Your task to perform on an android device: Open calendar and show me the third week of next month Image 0: 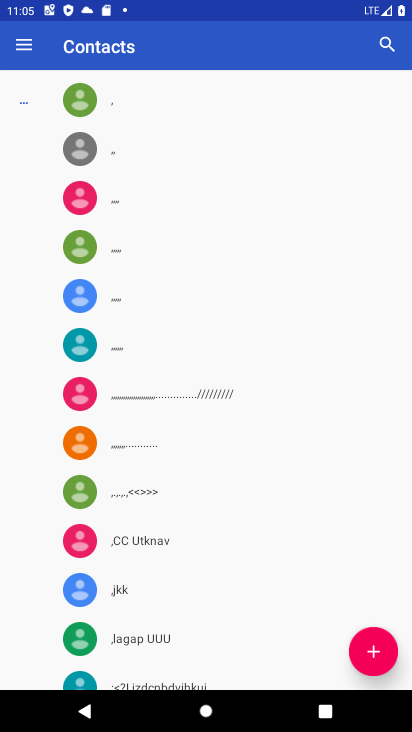
Step 0: press home button
Your task to perform on an android device: Open calendar and show me the third week of next month Image 1: 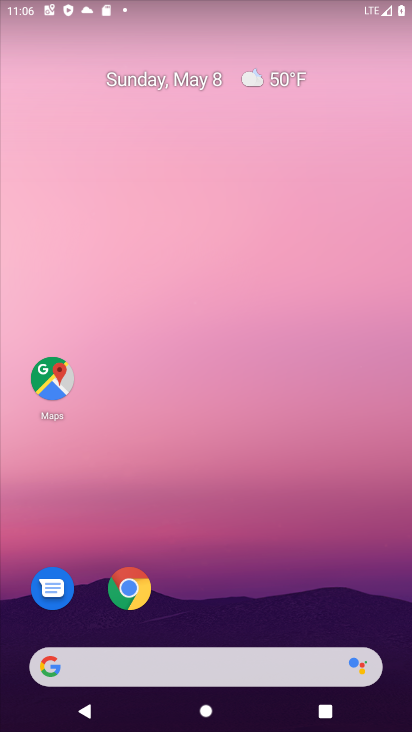
Step 1: drag from (238, 569) to (228, 21)
Your task to perform on an android device: Open calendar and show me the third week of next month Image 2: 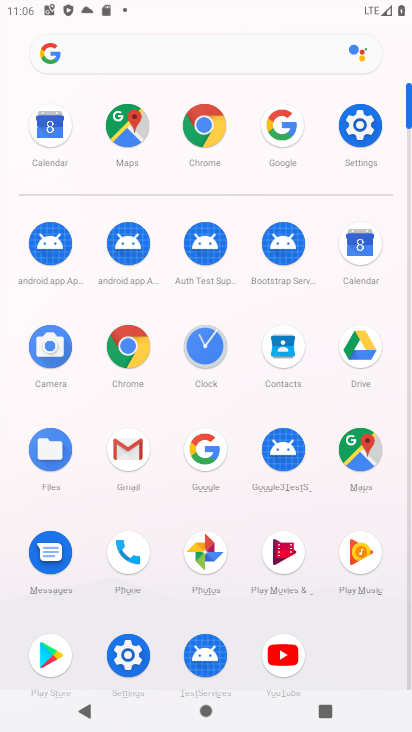
Step 2: click (352, 250)
Your task to perform on an android device: Open calendar and show me the third week of next month Image 3: 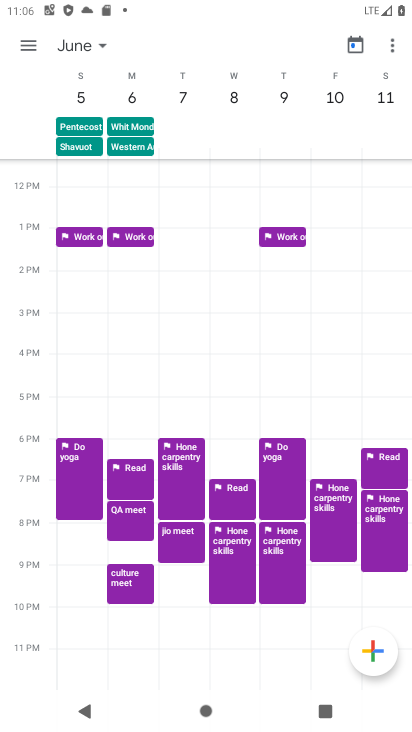
Step 3: click (90, 48)
Your task to perform on an android device: Open calendar and show me the third week of next month Image 4: 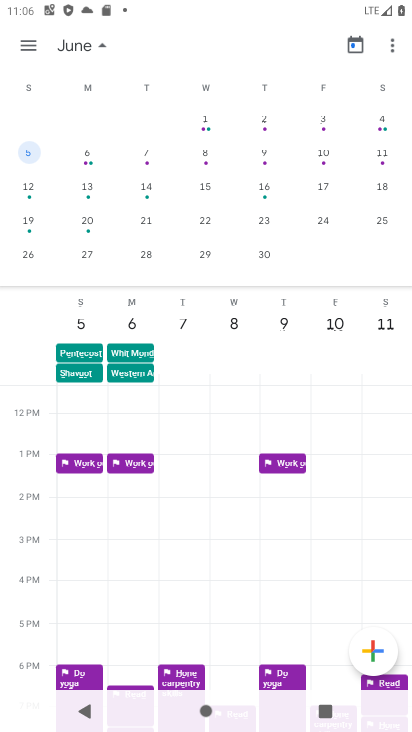
Step 4: click (34, 196)
Your task to perform on an android device: Open calendar and show me the third week of next month Image 5: 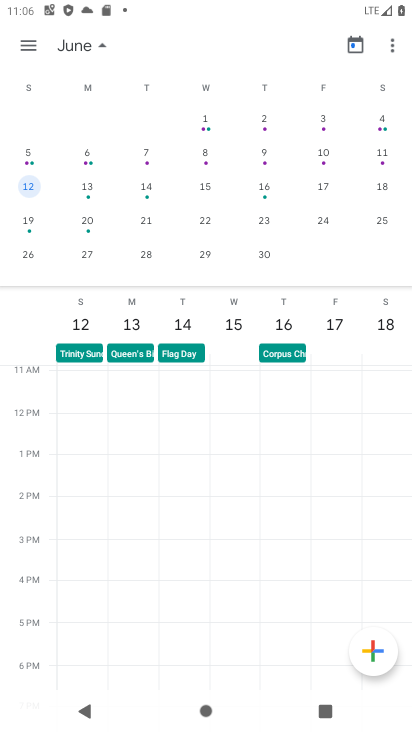
Step 5: task complete